Your task to perform on an android device: create a new album in the google photos Image 0: 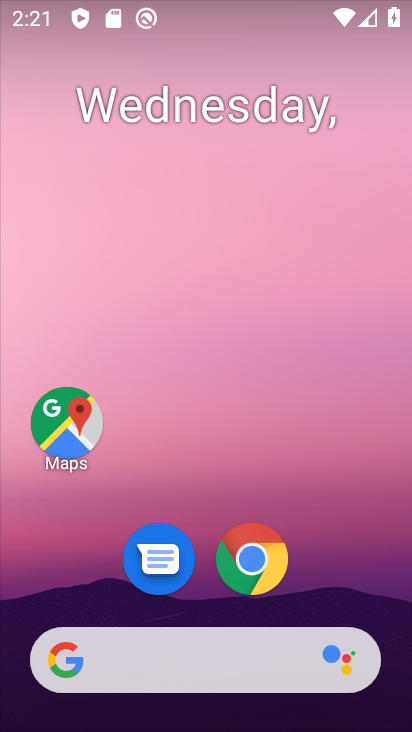
Step 0: drag from (352, 593) to (355, 130)
Your task to perform on an android device: create a new album in the google photos Image 1: 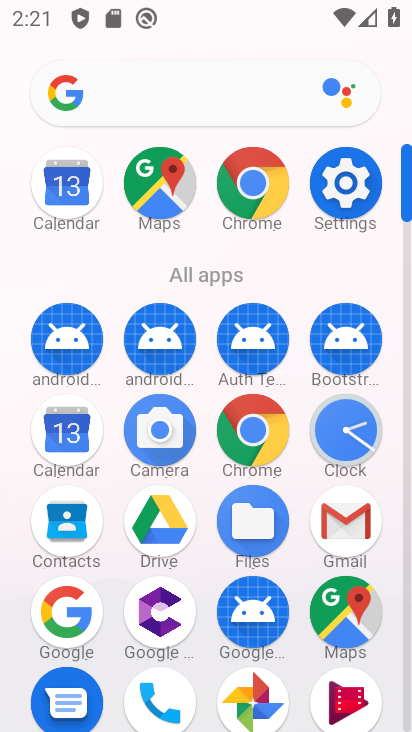
Step 1: click (254, 696)
Your task to perform on an android device: create a new album in the google photos Image 2: 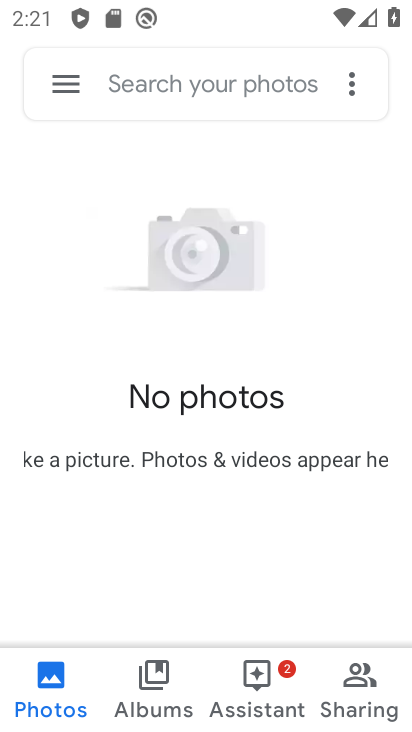
Step 2: click (160, 680)
Your task to perform on an android device: create a new album in the google photos Image 3: 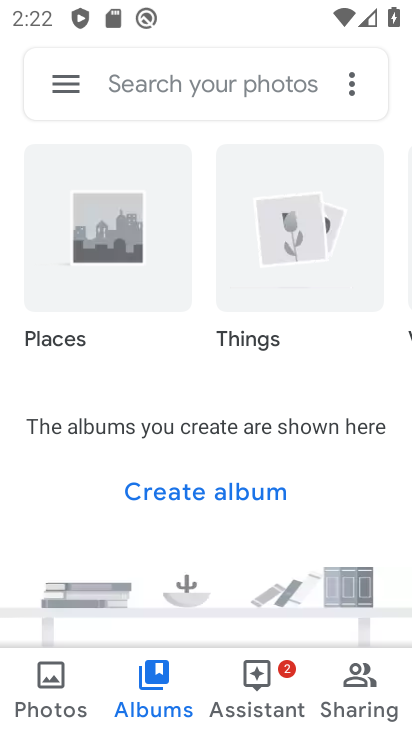
Step 3: click (212, 490)
Your task to perform on an android device: create a new album in the google photos Image 4: 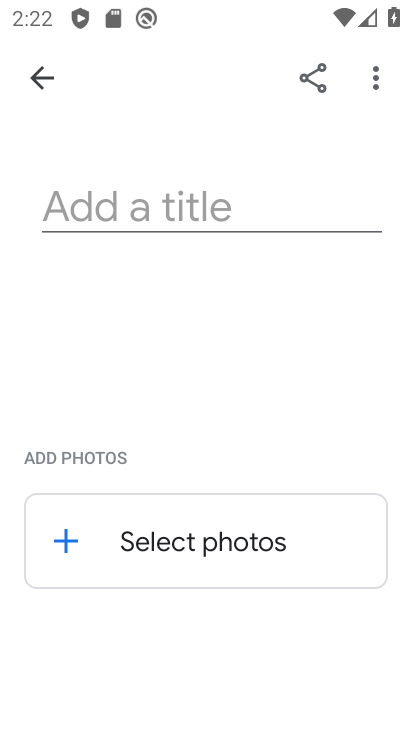
Step 4: click (156, 206)
Your task to perform on an android device: create a new album in the google photos Image 5: 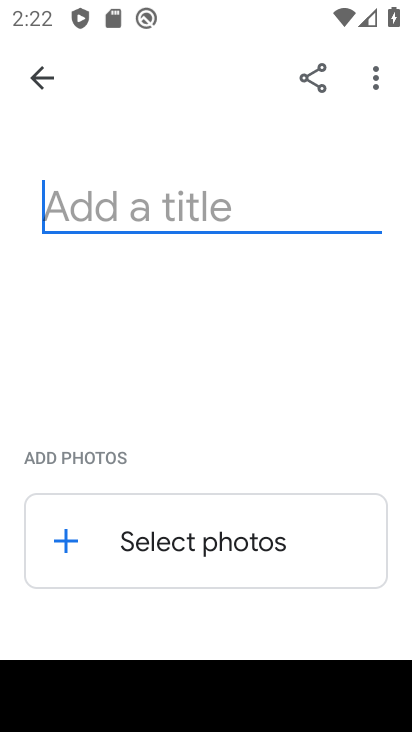
Step 5: type "fav"
Your task to perform on an android device: create a new album in the google photos Image 6: 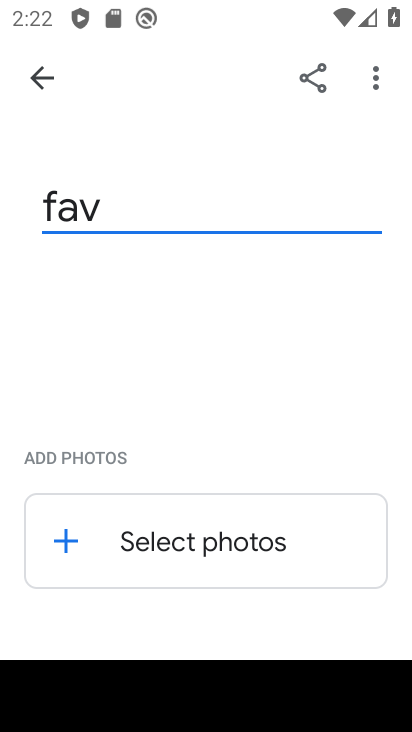
Step 6: click (202, 539)
Your task to perform on an android device: create a new album in the google photos Image 7: 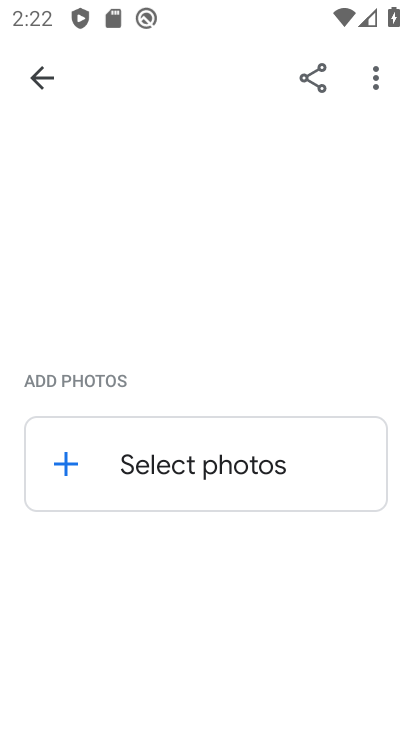
Step 7: click (350, 472)
Your task to perform on an android device: create a new album in the google photos Image 8: 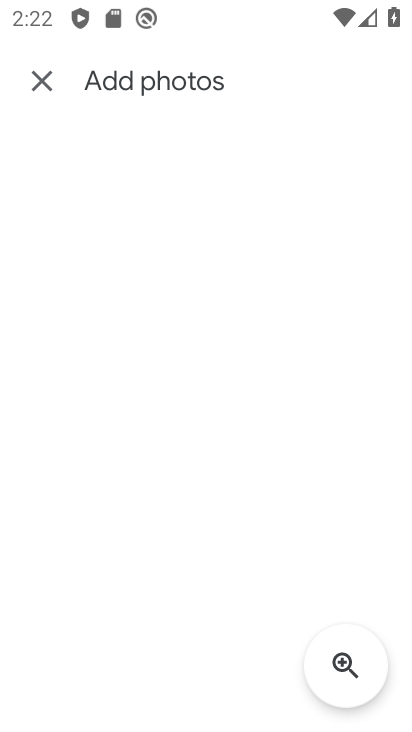
Step 8: task complete